Your task to perform on an android device: all mails in gmail Image 0: 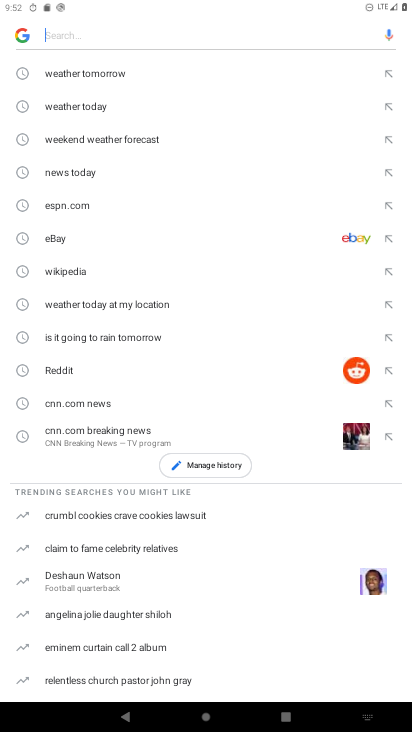
Step 0: press home button
Your task to perform on an android device: all mails in gmail Image 1: 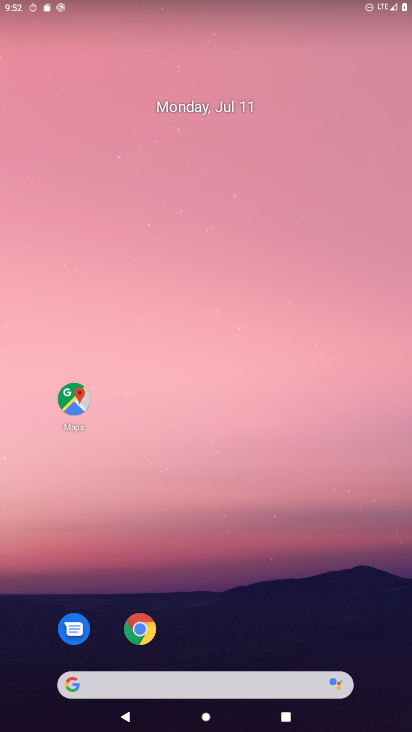
Step 1: drag from (209, 634) to (282, 43)
Your task to perform on an android device: all mails in gmail Image 2: 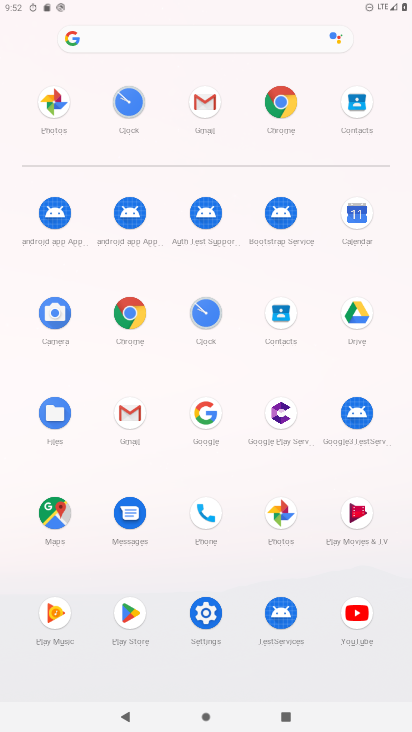
Step 2: click (203, 120)
Your task to perform on an android device: all mails in gmail Image 3: 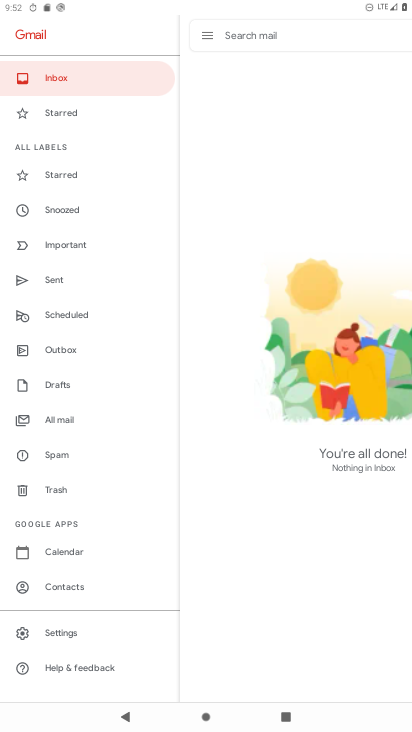
Step 3: click (54, 420)
Your task to perform on an android device: all mails in gmail Image 4: 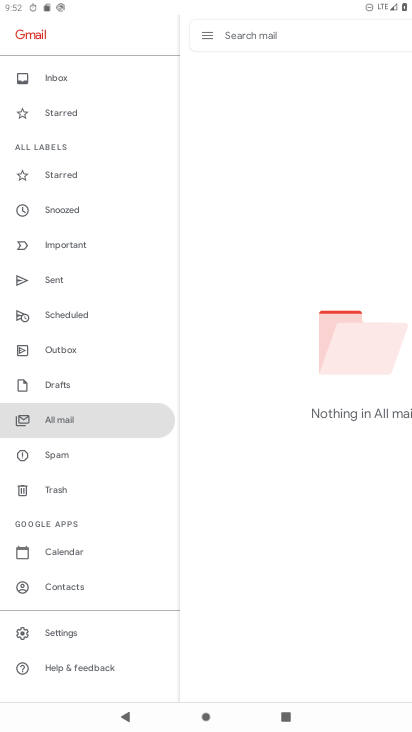
Step 4: task complete